Your task to perform on an android device: change the upload size in google photos Image 0: 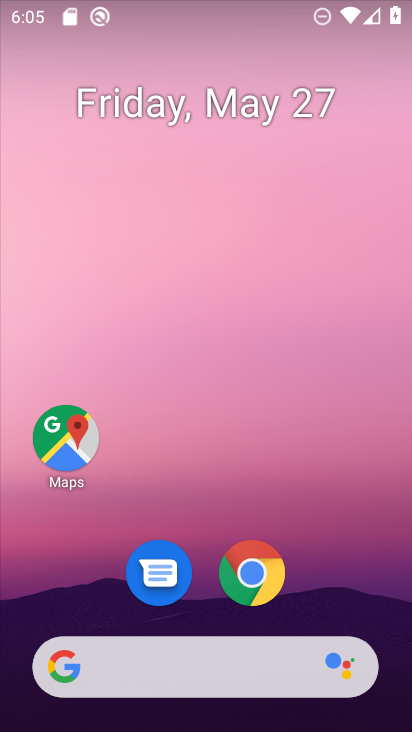
Step 0: drag from (198, 605) to (244, 133)
Your task to perform on an android device: change the upload size in google photos Image 1: 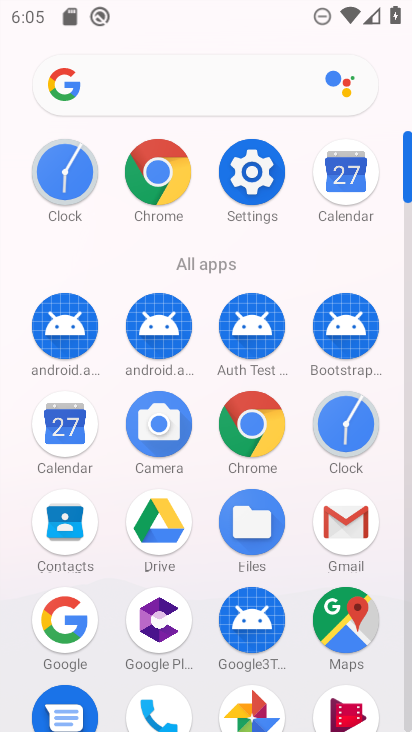
Step 1: click (250, 694)
Your task to perform on an android device: change the upload size in google photos Image 2: 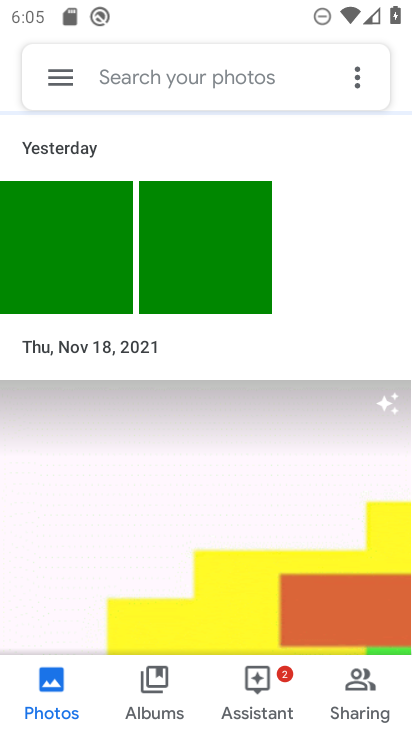
Step 2: click (54, 77)
Your task to perform on an android device: change the upload size in google photos Image 3: 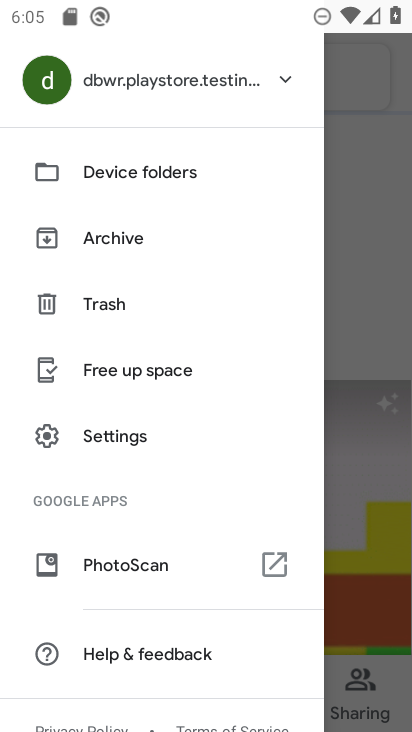
Step 3: drag from (180, 493) to (194, 153)
Your task to perform on an android device: change the upload size in google photos Image 4: 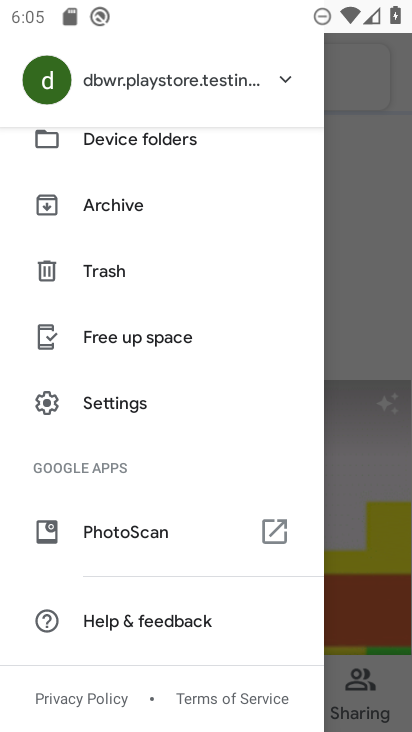
Step 4: click (125, 391)
Your task to perform on an android device: change the upload size in google photos Image 5: 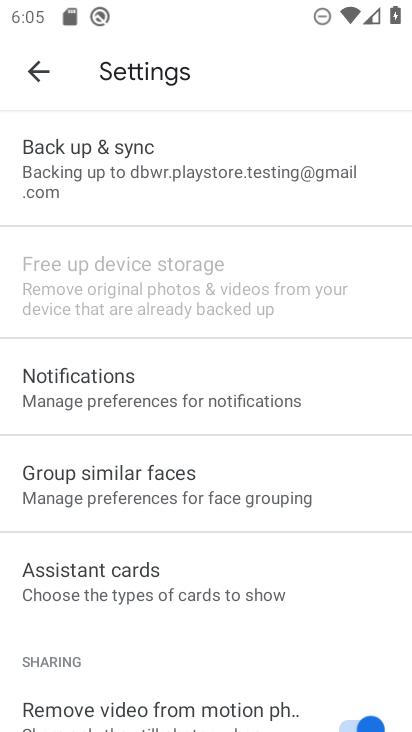
Step 5: click (130, 154)
Your task to perform on an android device: change the upload size in google photos Image 6: 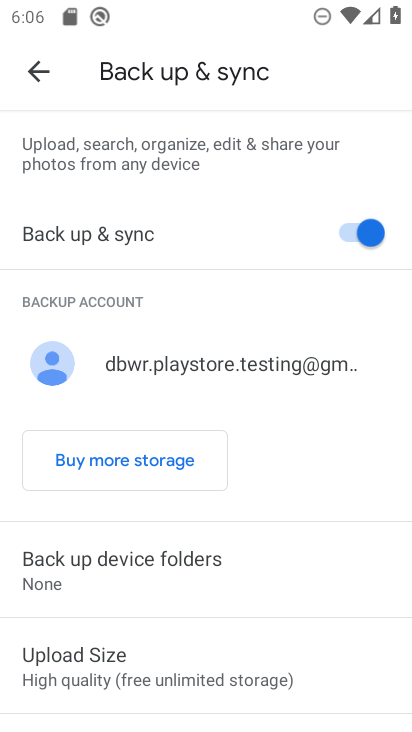
Step 6: click (155, 658)
Your task to perform on an android device: change the upload size in google photos Image 7: 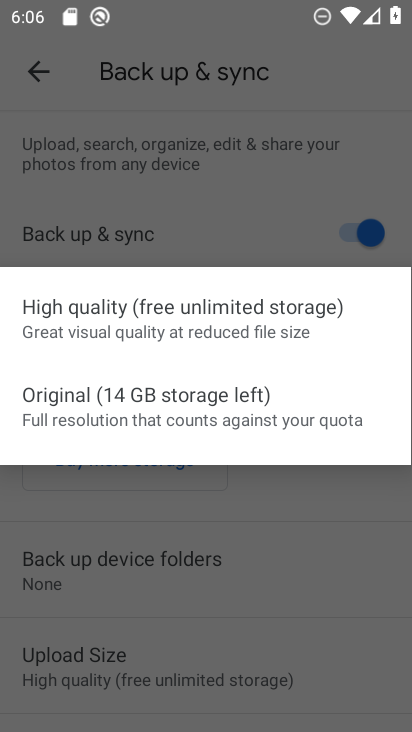
Step 7: click (135, 396)
Your task to perform on an android device: change the upload size in google photos Image 8: 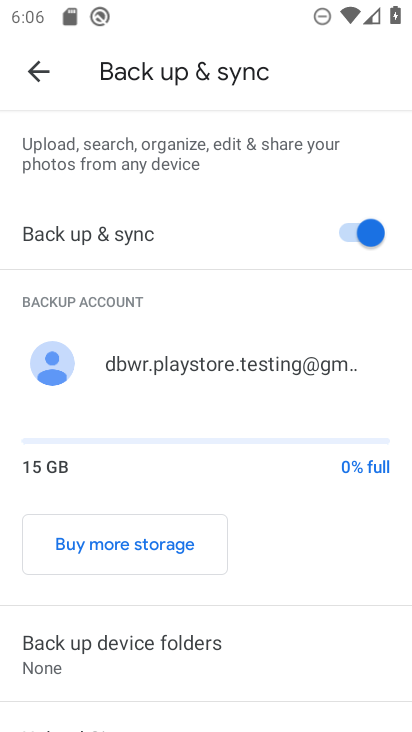
Step 8: task complete